Your task to perform on an android device: turn on location history Image 0: 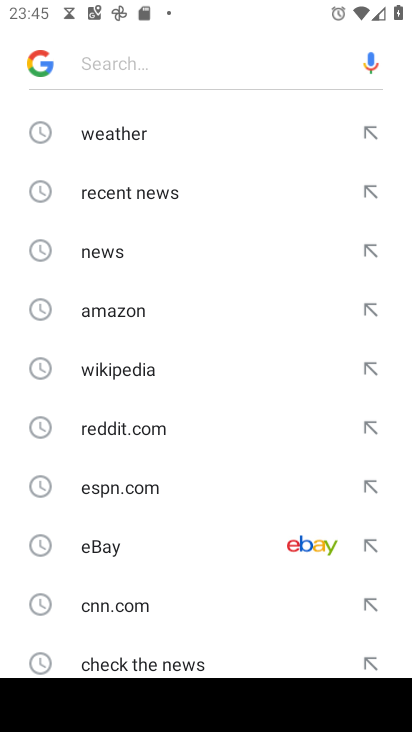
Step 0: press home button
Your task to perform on an android device: turn on location history Image 1: 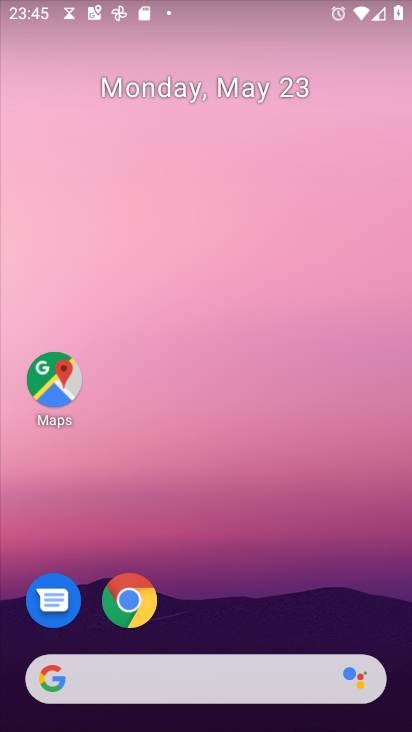
Step 1: drag from (186, 712) to (176, 174)
Your task to perform on an android device: turn on location history Image 2: 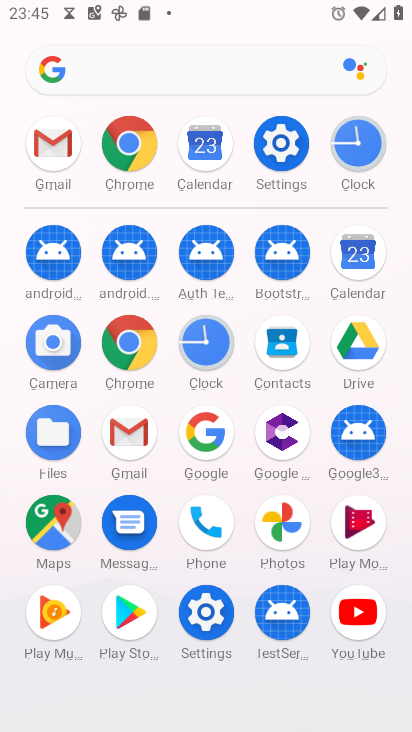
Step 2: click (285, 141)
Your task to perform on an android device: turn on location history Image 3: 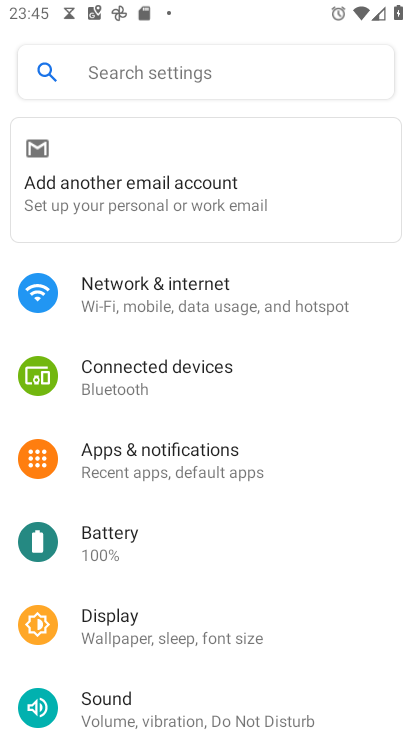
Step 3: drag from (136, 662) to (133, 236)
Your task to perform on an android device: turn on location history Image 4: 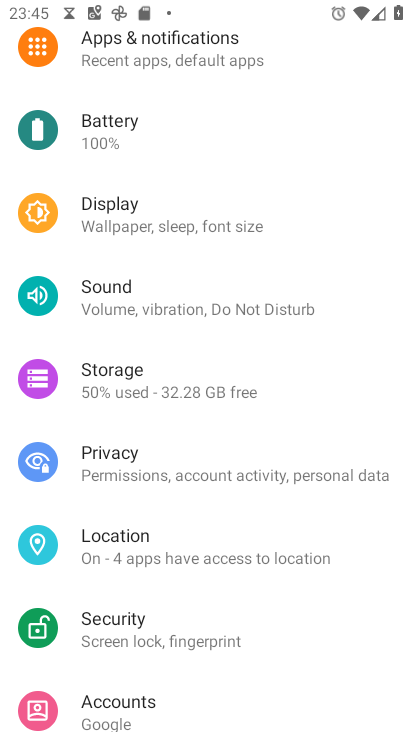
Step 4: click (128, 548)
Your task to perform on an android device: turn on location history Image 5: 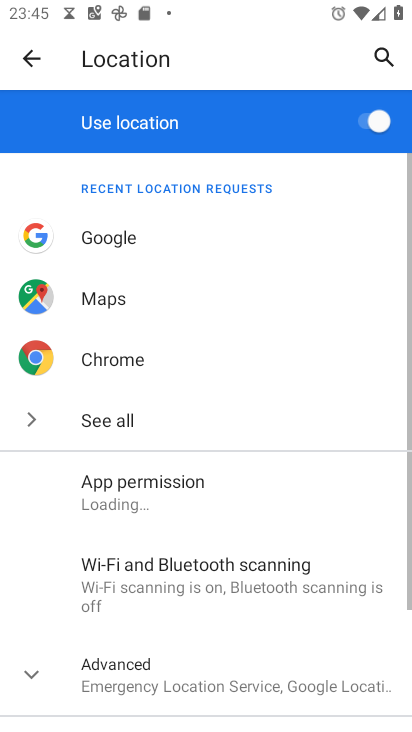
Step 5: drag from (162, 645) to (175, 414)
Your task to perform on an android device: turn on location history Image 6: 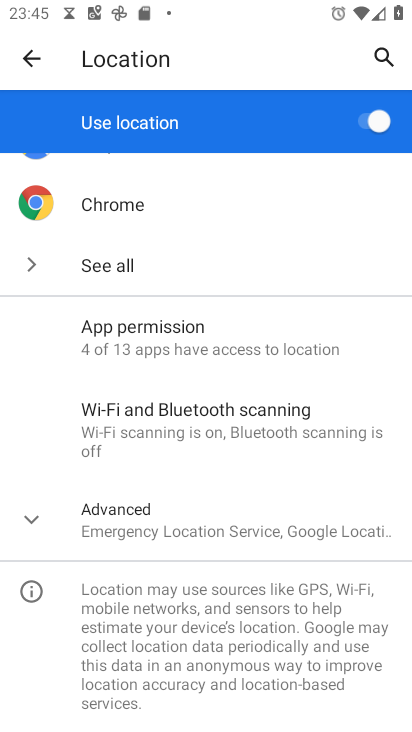
Step 6: click (126, 523)
Your task to perform on an android device: turn on location history Image 7: 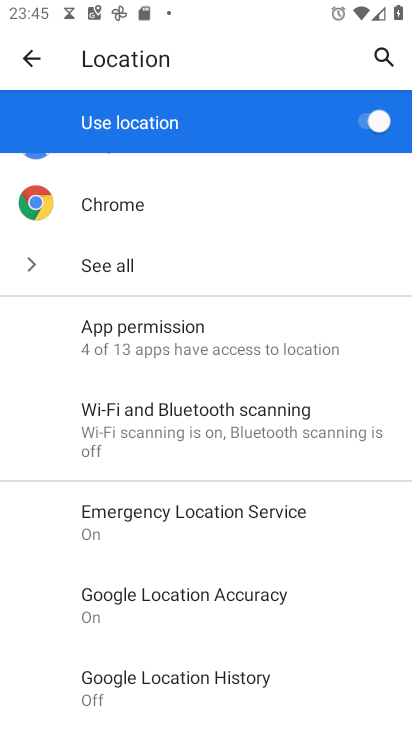
Step 7: click (191, 673)
Your task to perform on an android device: turn on location history Image 8: 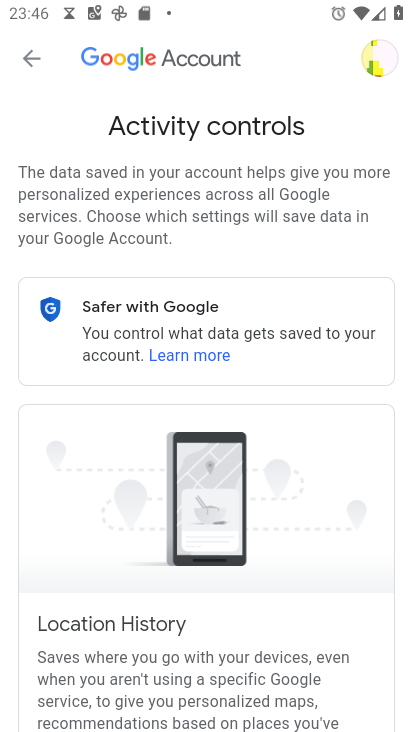
Step 8: drag from (206, 663) to (214, 396)
Your task to perform on an android device: turn on location history Image 9: 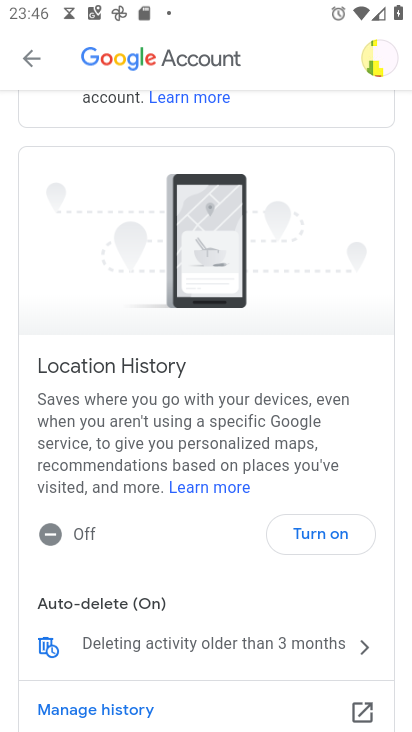
Step 9: click (320, 532)
Your task to perform on an android device: turn on location history Image 10: 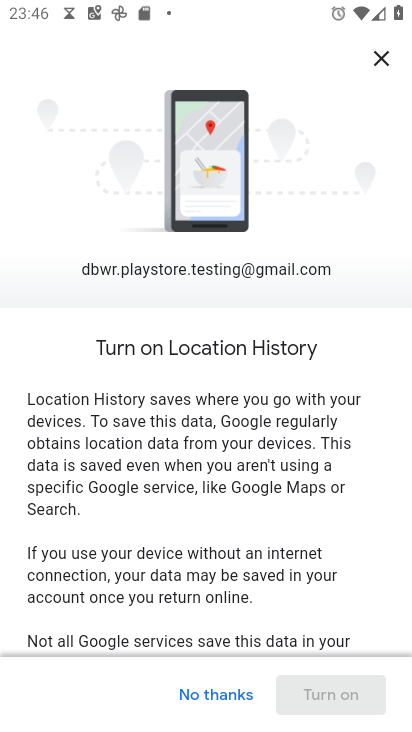
Step 10: drag from (304, 619) to (304, 272)
Your task to perform on an android device: turn on location history Image 11: 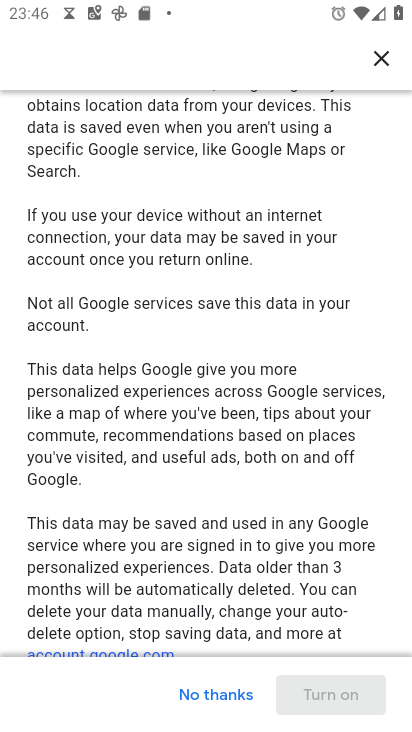
Step 11: drag from (266, 621) to (289, 326)
Your task to perform on an android device: turn on location history Image 12: 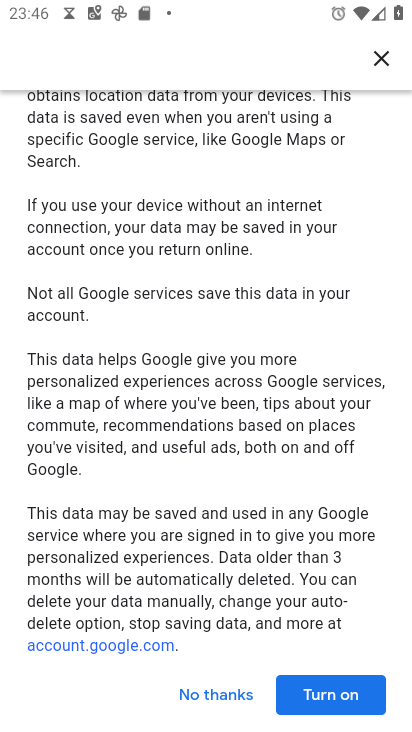
Step 12: click (332, 690)
Your task to perform on an android device: turn on location history Image 13: 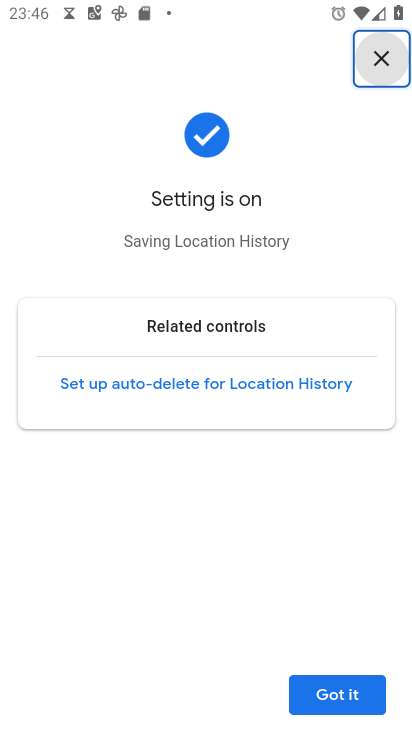
Step 13: click (330, 693)
Your task to perform on an android device: turn on location history Image 14: 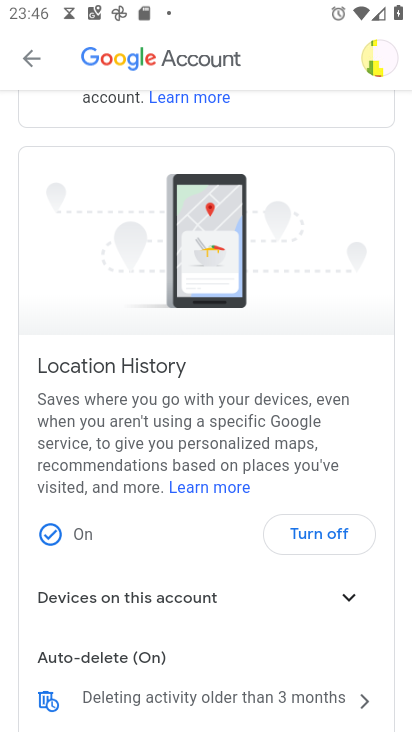
Step 14: task complete